Your task to perform on an android device: turn off location history Image 0: 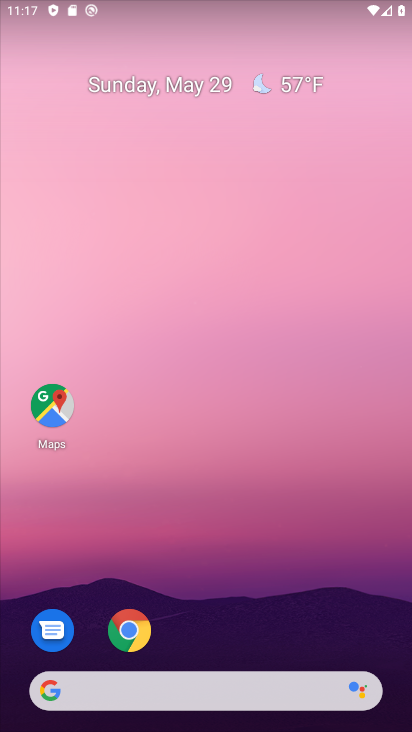
Step 0: drag from (218, 645) to (162, 267)
Your task to perform on an android device: turn off location history Image 1: 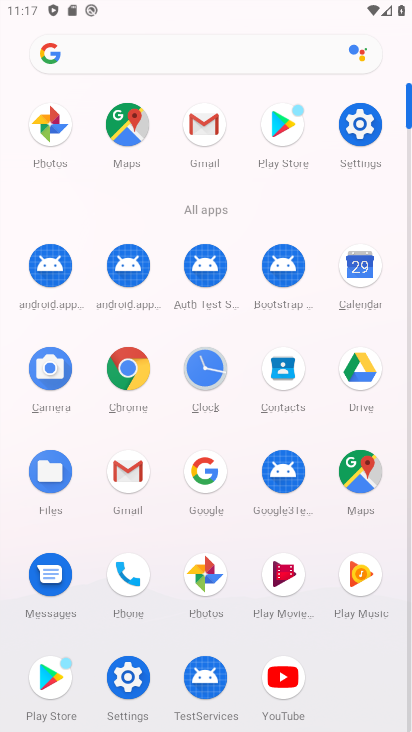
Step 1: click (137, 672)
Your task to perform on an android device: turn off location history Image 2: 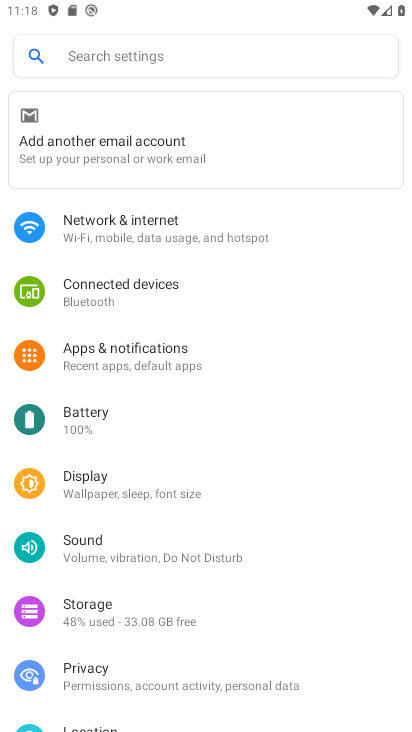
Step 2: click (130, 47)
Your task to perform on an android device: turn off location history Image 3: 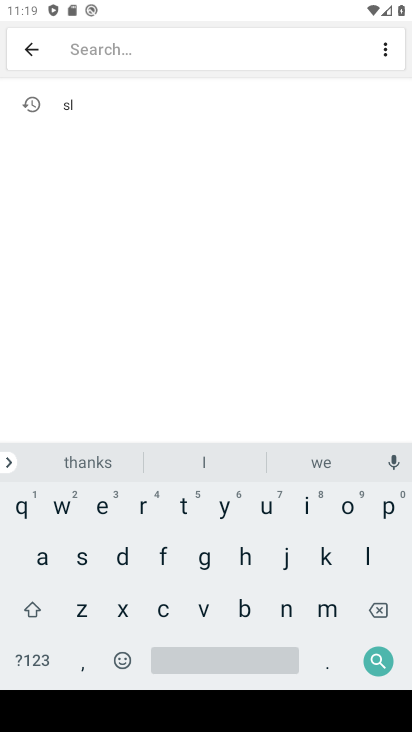
Step 3: click (371, 560)
Your task to perform on an android device: turn off location history Image 4: 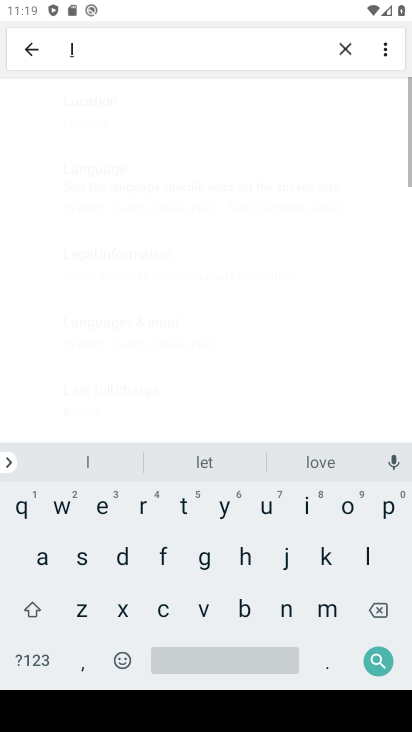
Step 4: click (352, 510)
Your task to perform on an android device: turn off location history Image 5: 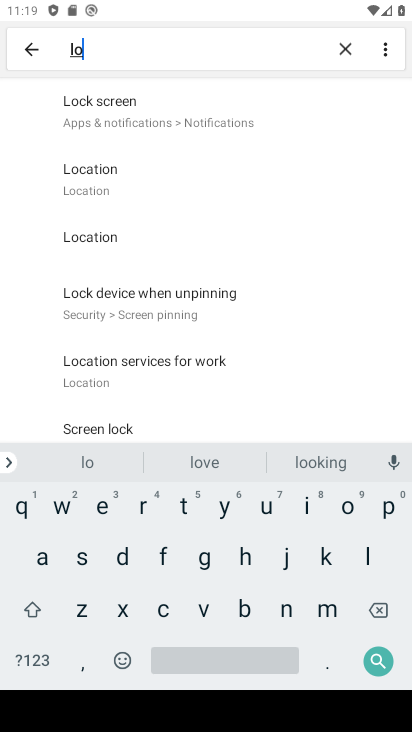
Step 5: click (122, 185)
Your task to perform on an android device: turn off location history Image 6: 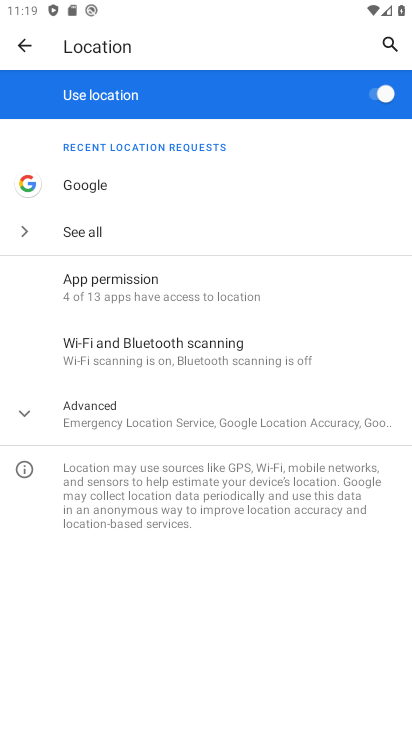
Step 6: click (45, 419)
Your task to perform on an android device: turn off location history Image 7: 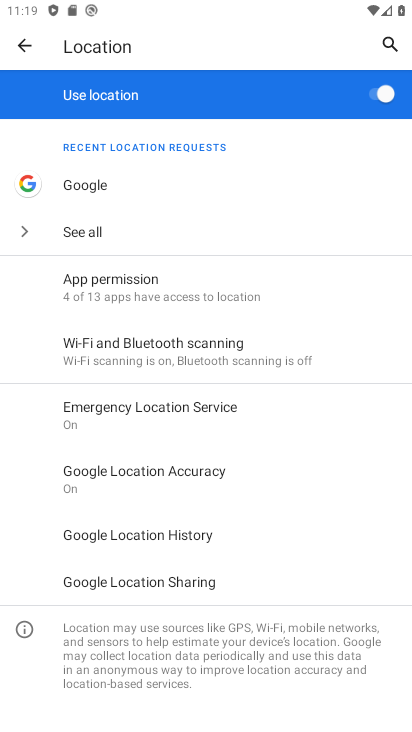
Step 7: click (144, 538)
Your task to perform on an android device: turn off location history Image 8: 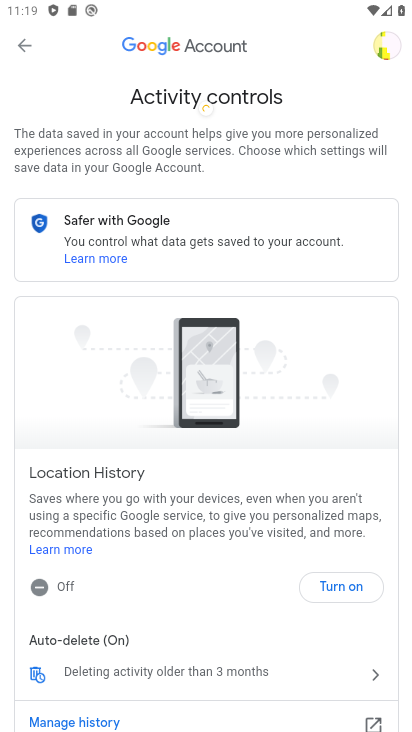
Step 8: drag from (279, 571) to (317, 285)
Your task to perform on an android device: turn off location history Image 9: 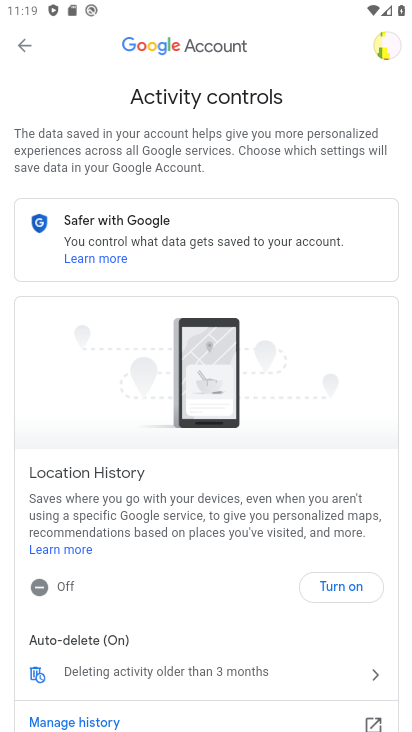
Step 9: click (83, 588)
Your task to perform on an android device: turn off location history Image 10: 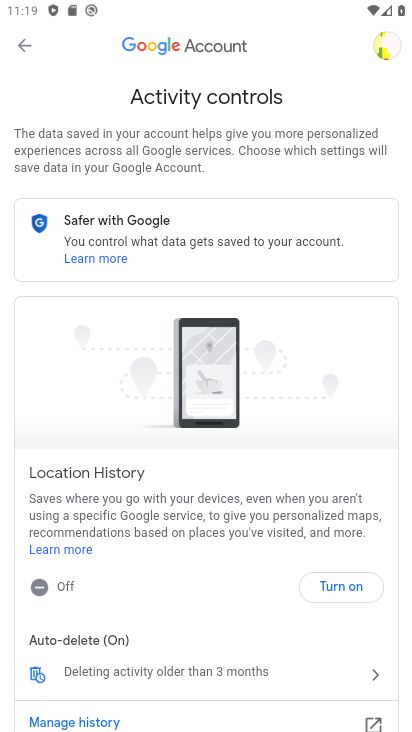
Step 10: task complete